Your task to perform on an android device: Open the calendar and show me this week's events? Image 0: 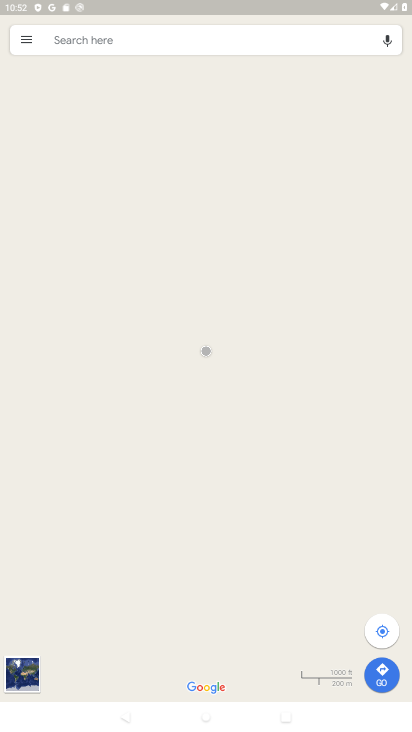
Step 0: press home button
Your task to perform on an android device: Open the calendar and show me this week's events? Image 1: 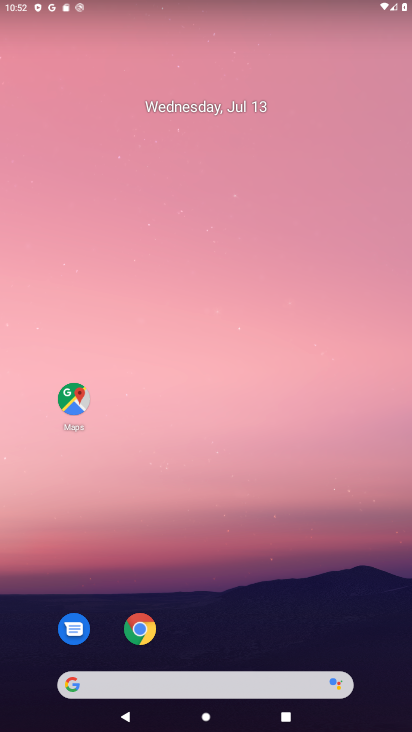
Step 1: drag from (307, 624) to (261, 106)
Your task to perform on an android device: Open the calendar and show me this week's events? Image 2: 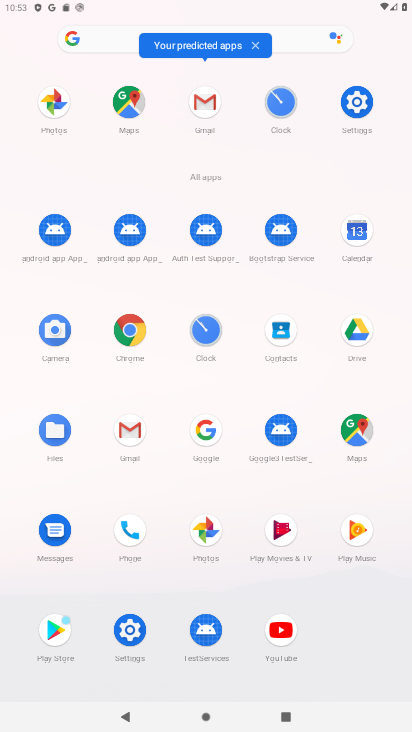
Step 2: click (356, 226)
Your task to perform on an android device: Open the calendar and show me this week's events? Image 3: 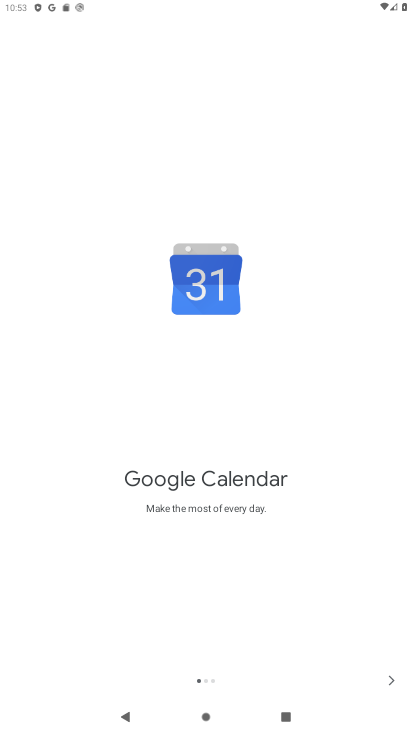
Step 3: click (391, 679)
Your task to perform on an android device: Open the calendar and show me this week's events? Image 4: 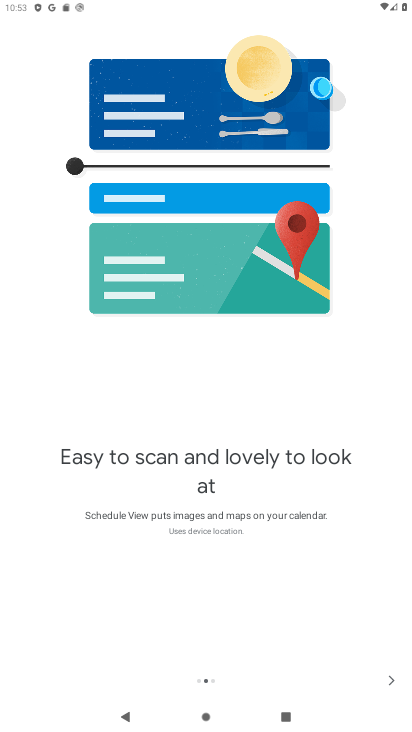
Step 4: click (389, 679)
Your task to perform on an android device: Open the calendar and show me this week's events? Image 5: 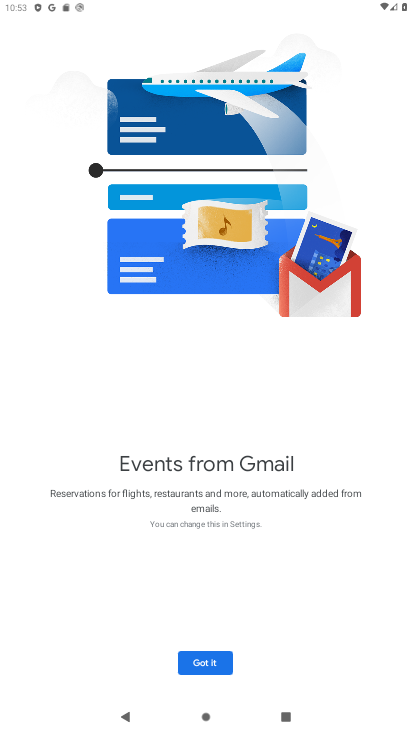
Step 5: click (219, 656)
Your task to perform on an android device: Open the calendar and show me this week's events? Image 6: 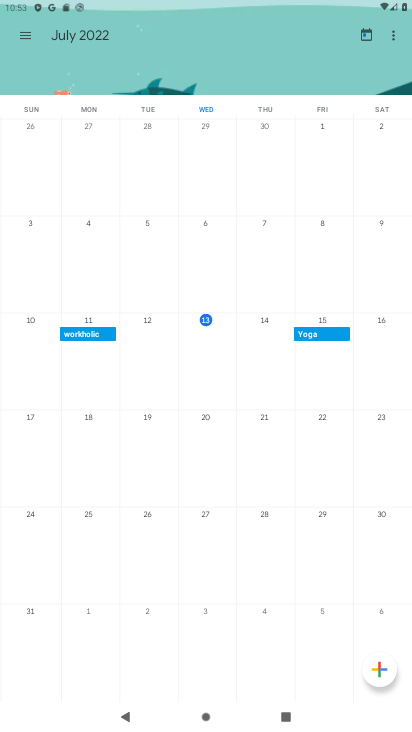
Step 6: click (22, 36)
Your task to perform on an android device: Open the calendar and show me this week's events? Image 7: 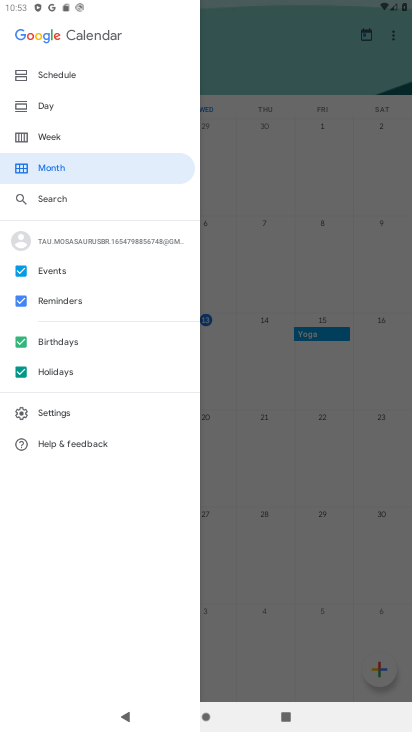
Step 7: click (60, 137)
Your task to perform on an android device: Open the calendar and show me this week's events? Image 8: 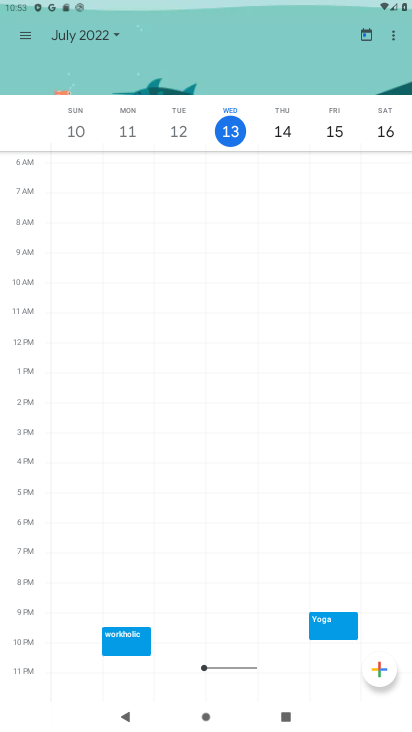
Step 8: click (27, 39)
Your task to perform on an android device: Open the calendar and show me this week's events? Image 9: 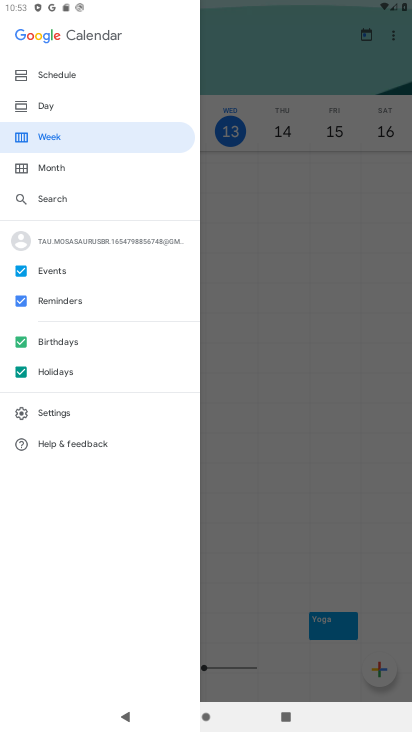
Step 9: click (20, 371)
Your task to perform on an android device: Open the calendar and show me this week's events? Image 10: 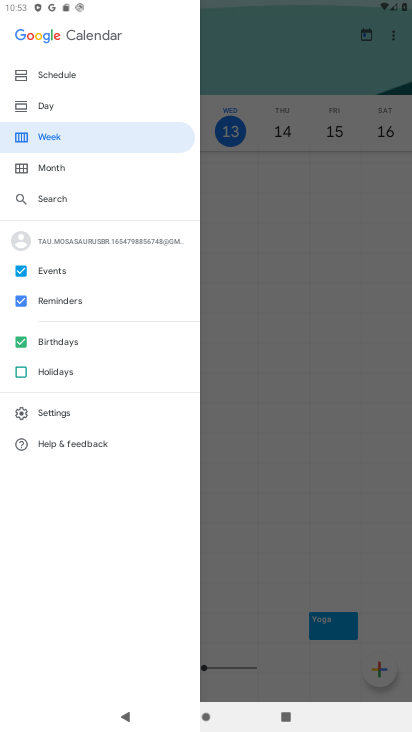
Step 10: click (18, 338)
Your task to perform on an android device: Open the calendar and show me this week's events? Image 11: 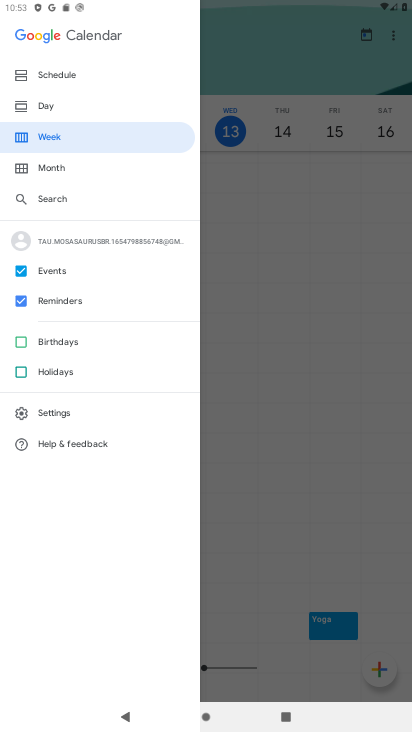
Step 11: click (20, 299)
Your task to perform on an android device: Open the calendar and show me this week's events? Image 12: 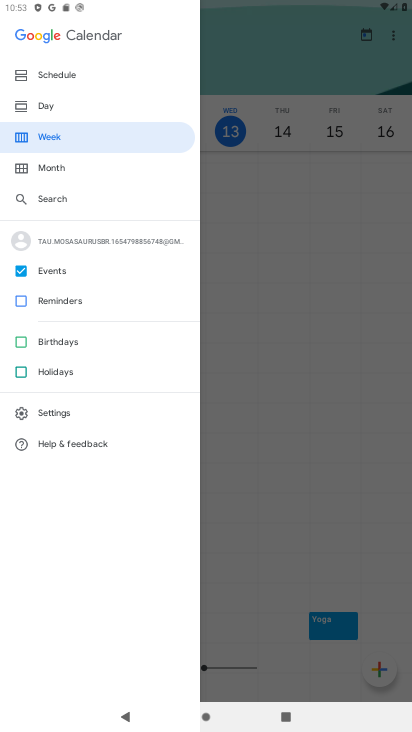
Step 12: click (81, 135)
Your task to perform on an android device: Open the calendar and show me this week's events? Image 13: 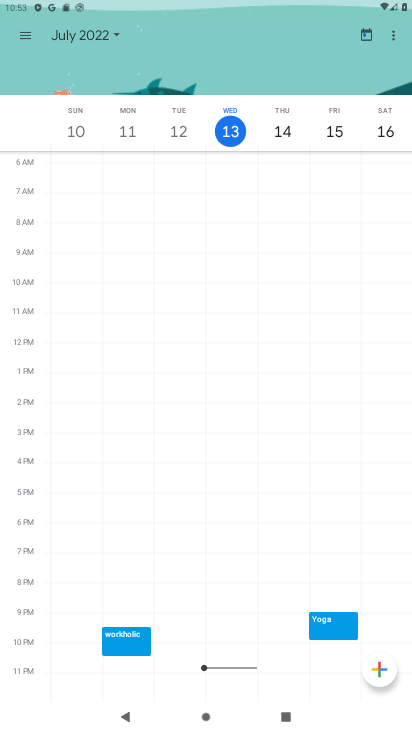
Step 13: task complete